Your task to perform on an android device: delete a single message in the gmail app Image 0: 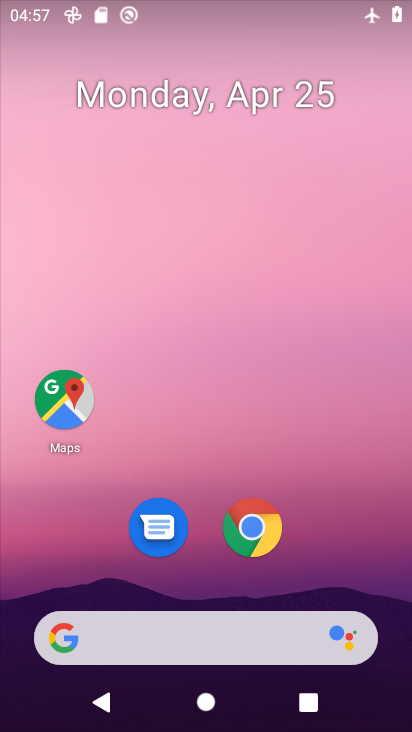
Step 0: drag from (400, 622) to (281, 119)
Your task to perform on an android device: delete a single message in the gmail app Image 1: 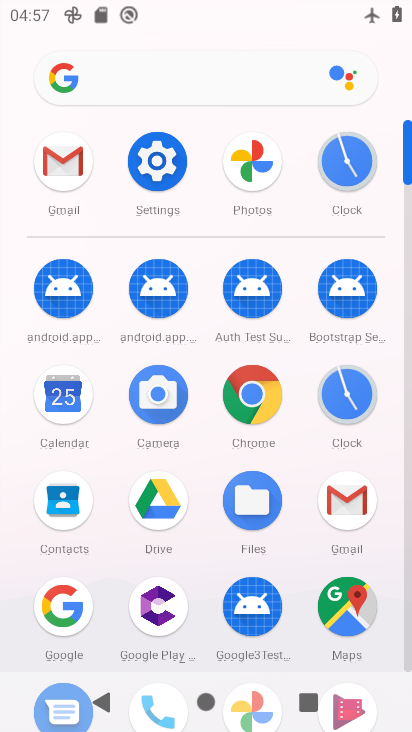
Step 1: click (407, 651)
Your task to perform on an android device: delete a single message in the gmail app Image 2: 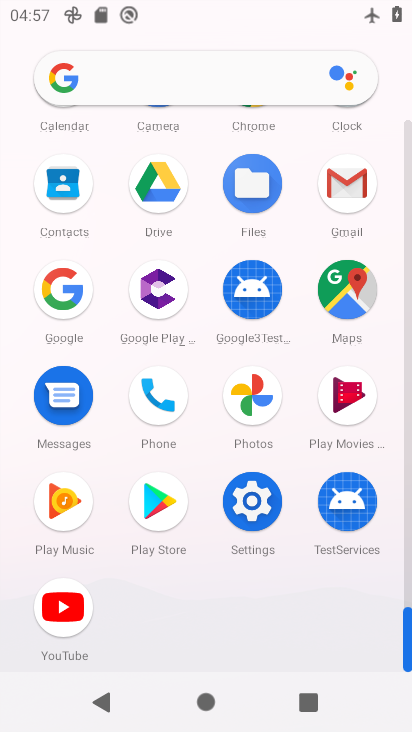
Step 2: click (347, 184)
Your task to perform on an android device: delete a single message in the gmail app Image 3: 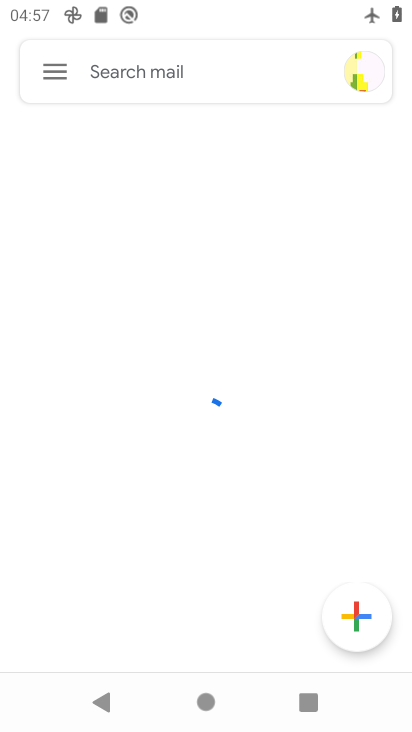
Step 3: click (50, 68)
Your task to perform on an android device: delete a single message in the gmail app Image 4: 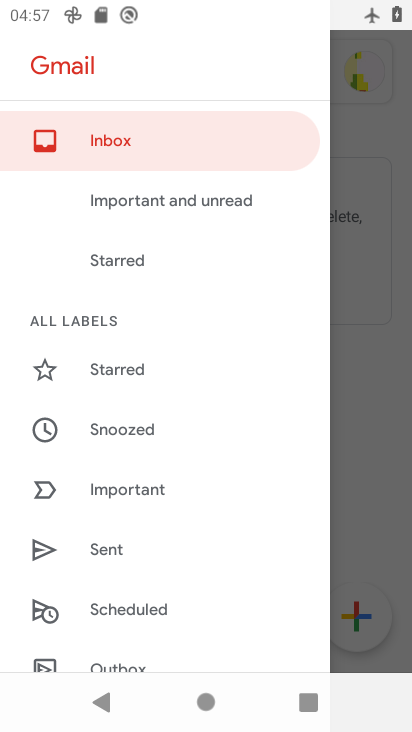
Step 4: click (146, 140)
Your task to perform on an android device: delete a single message in the gmail app Image 5: 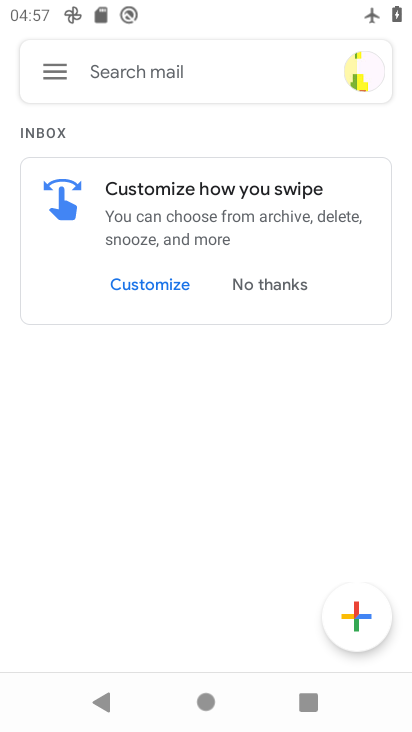
Step 5: task complete